Your task to perform on an android device: make emails show in primary in the gmail app Image 0: 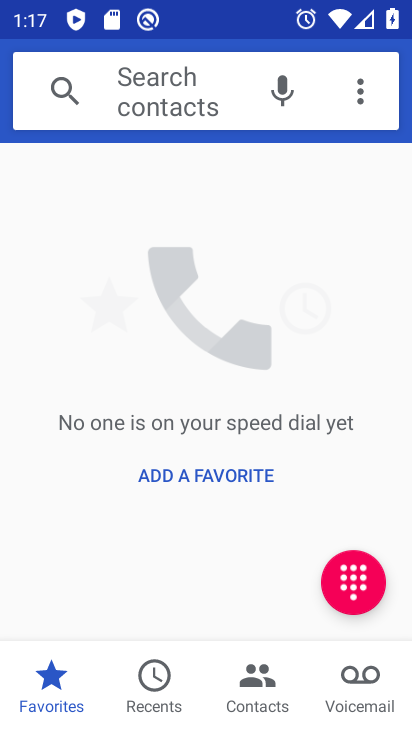
Step 0: press home button
Your task to perform on an android device: make emails show in primary in the gmail app Image 1: 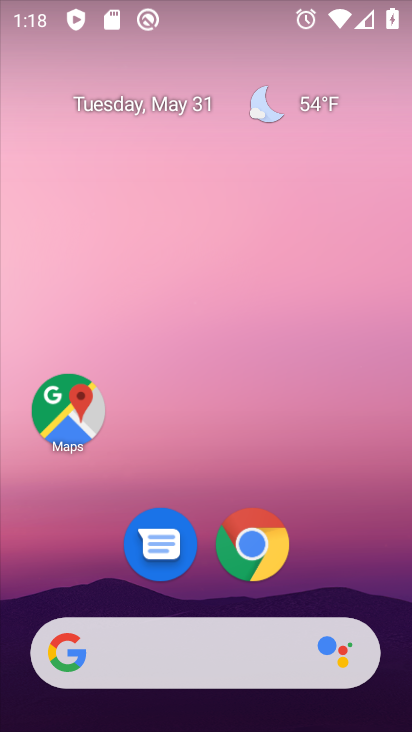
Step 1: drag from (335, 591) to (343, 6)
Your task to perform on an android device: make emails show in primary in the gmail app Image 2: 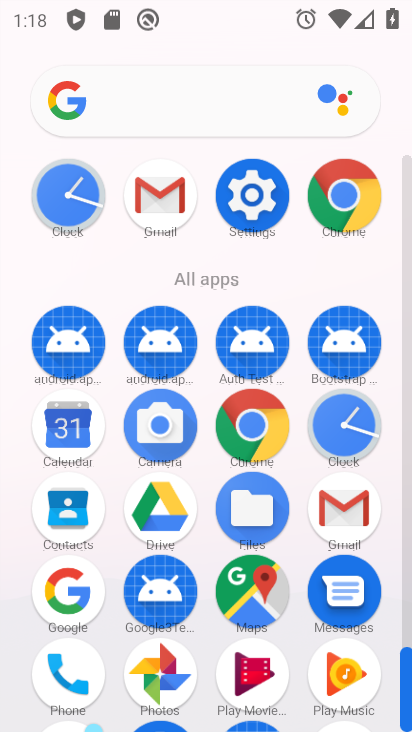
Step 2: click (365, 516)
Your task to perform on an android device: make emails show in primary in the gmail app Image 3: 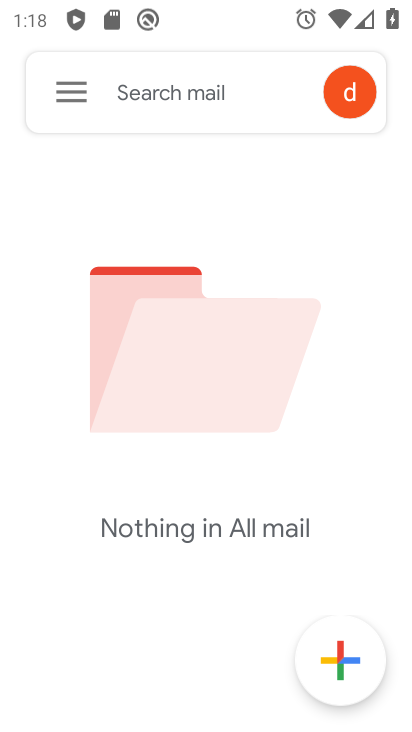
Step 3: click (87, 90)
Your task to perform on an android device: make emails show in primary in the gmail app Image 4: 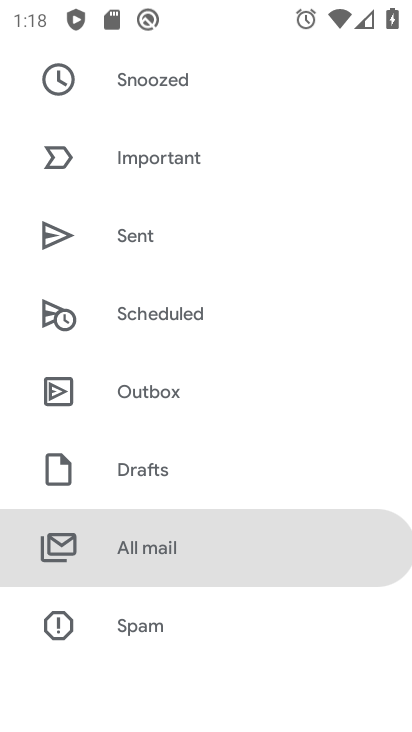
Step 4: drag from (133, 568) to (143, 221)
Your task to perform on an android device: make emails show in primary in the gmail app Image 5: 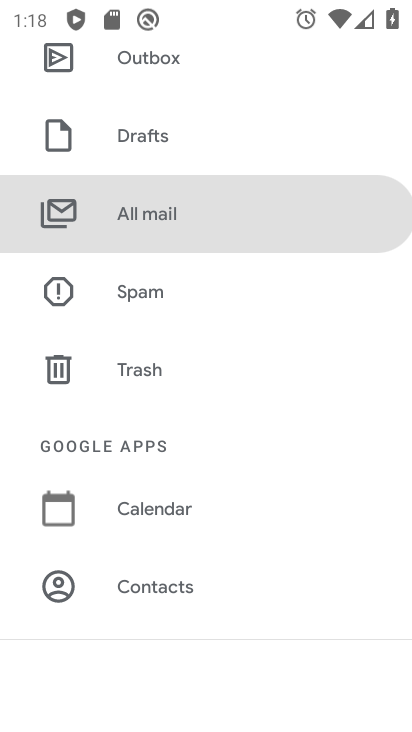
Step 5: drag from (144, 605) to (198, 258)
Your task to perform on an android device: make emails show in primary in the gmail app Image 6: 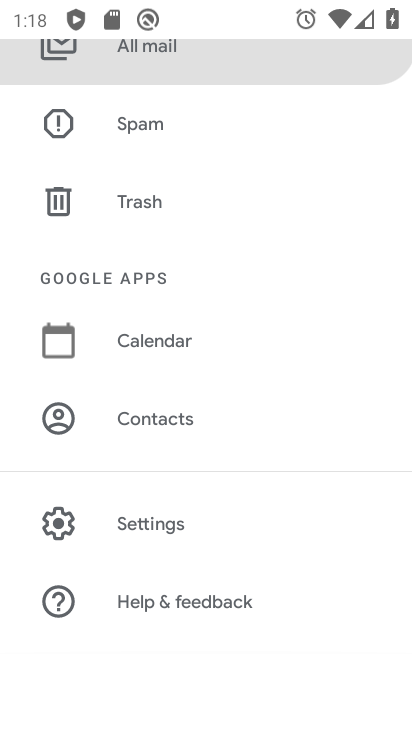
Step 6: click (167, 535)
Your task to perform on an android device: make emails show in primary in the gmail app Image 7: 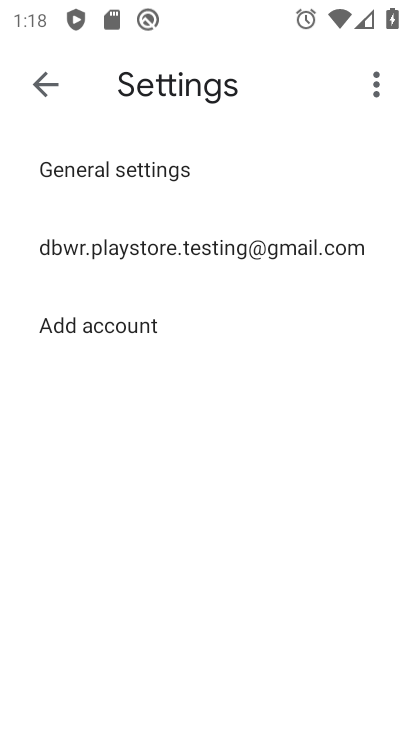
Step 7: click (214, 255)
Your task to perform on an android device: make emails show in primary in the gmail app Image 8: 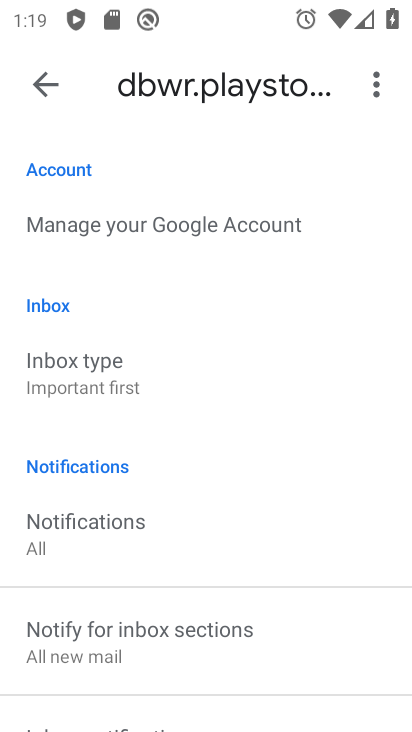
Step 8: drag from (142, 632) to (185, 331)
Your task to perform on an android device: make emails show in primary in the gmail app Image 9: 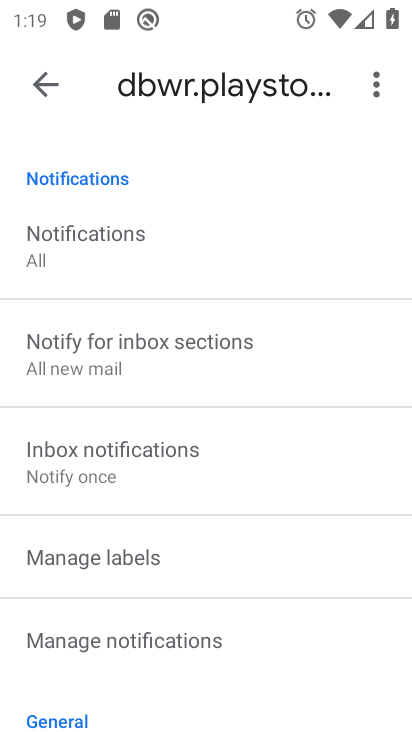
Step 9: drag from (131, 329) to (139, 551)
Your task to perform on an android device: make emails show in primary in the gmail app Image 10: 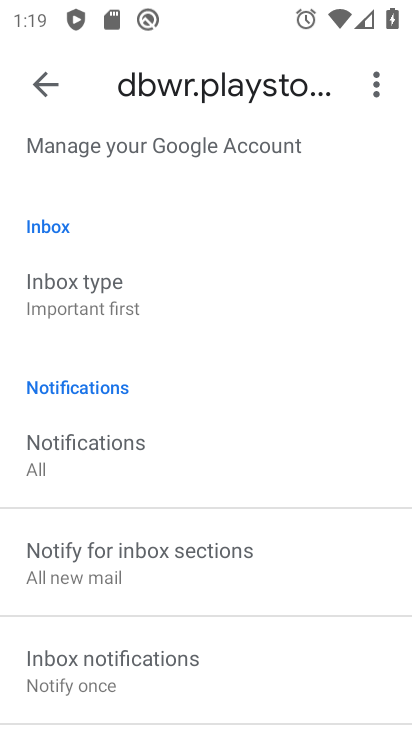
Step 10: click (121, 299)
Your task to perform on an android device: make emails show in primary in the gmail app Image 11: 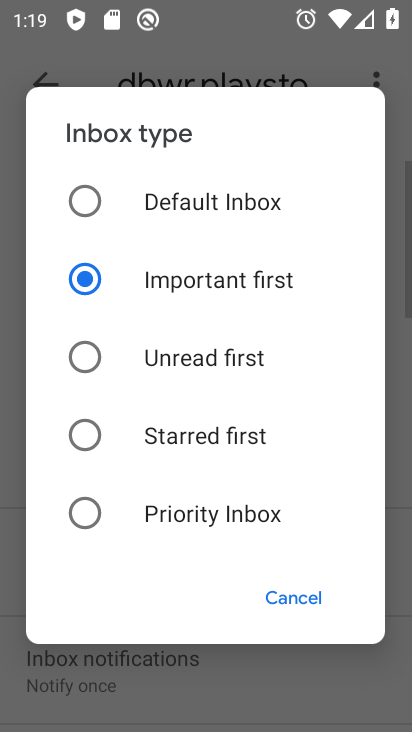
Step 11: click (160, 203)
Your task to perform on an android device: make emails show in primary in the gmail app Image 12: 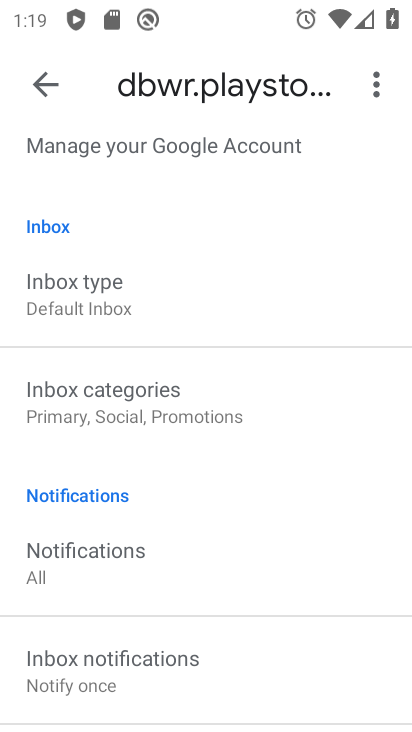
Step 12: task complete